Your task to perform on an android device: Go to settings Image 0: 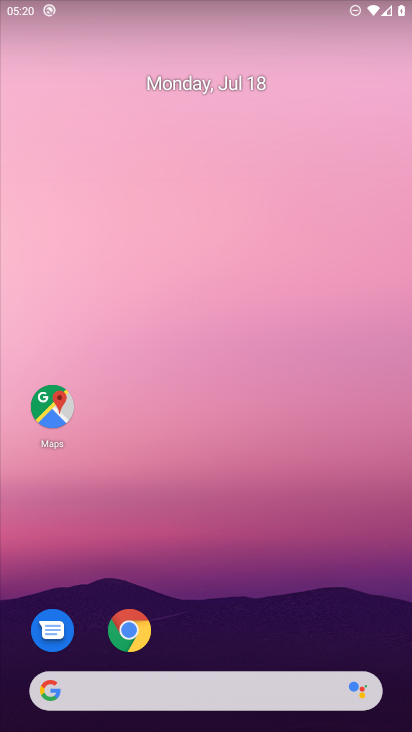
Step 0: press home button
Your task to perform on an android device: Go to settings Image 1: 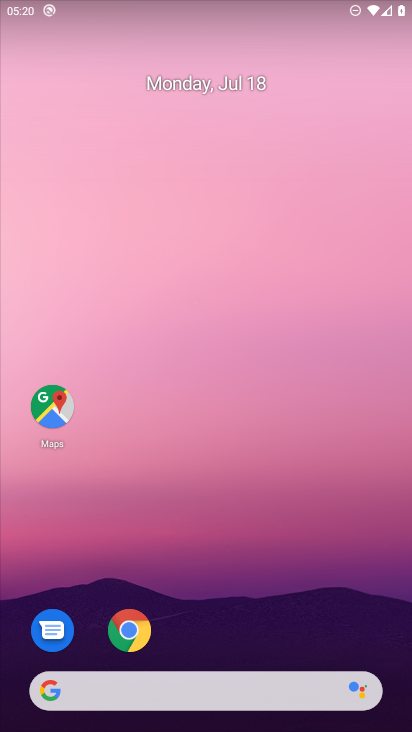
Step 1: drag from (211, 647) to (205, 181)
Your task to perform on an android device: Go to settings Image 2: 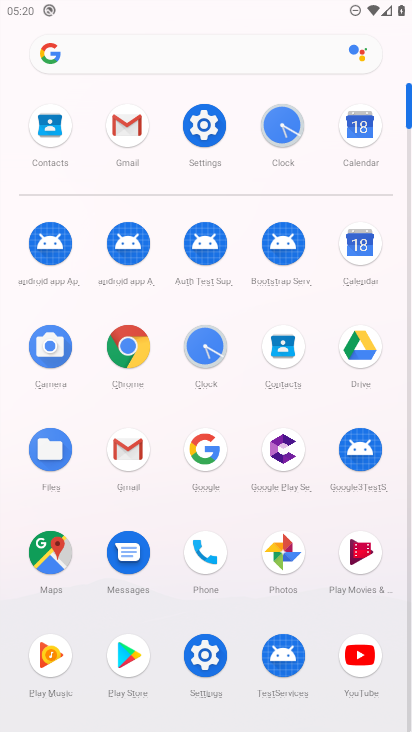
Step 2: click (201, 120)
Your task to perform on an android device: Go to settings Image 3: 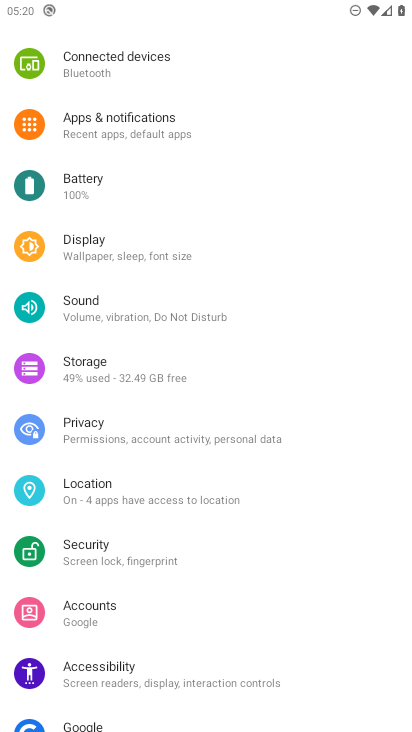
Step 3: task complete